Your task to perform on an android device: Open Google Chrome Image 0: 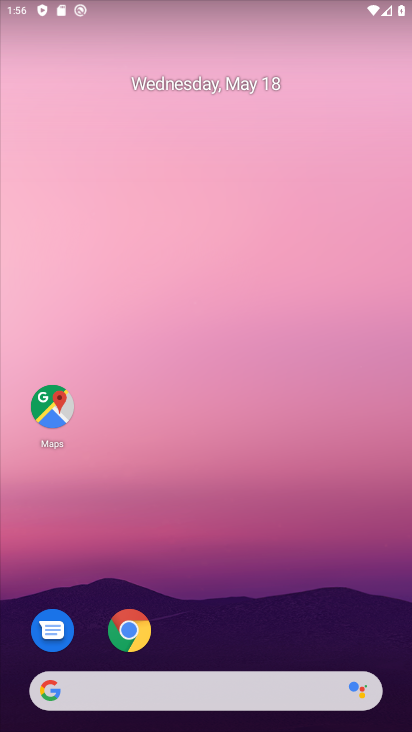
Step 0: click (144, 636)
Your task to perform on an android device: Open Google Chrome Image 1: 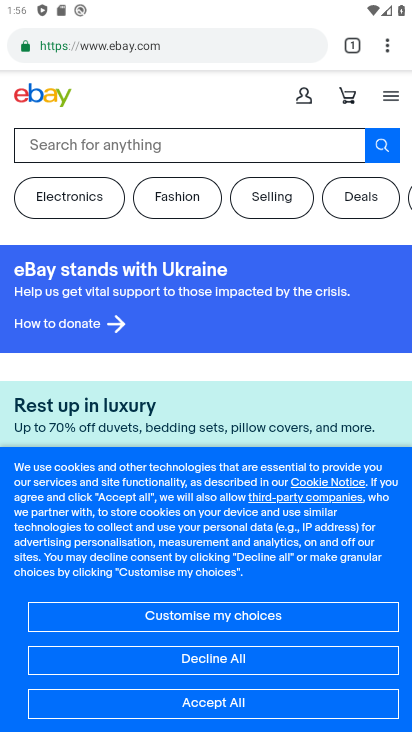
Step 1: task complete